Your task to perform on an android device: stop showing notifications on the lock screen Image 0: 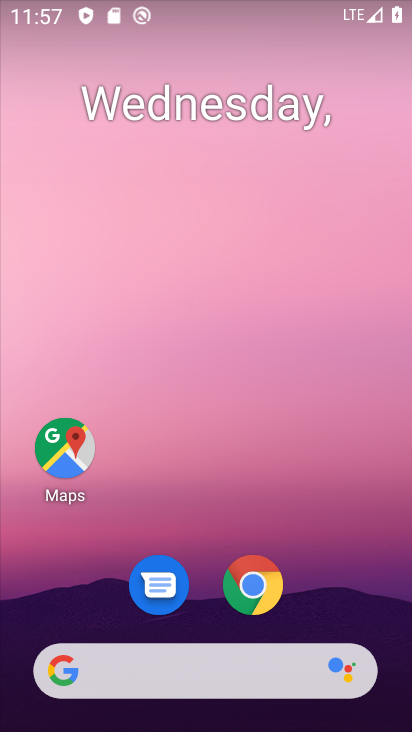
Step 0: drag from (316, 521) to (255, 41)
Your task to perform on an android device: stop showing notifications on the lock screen Image 1: 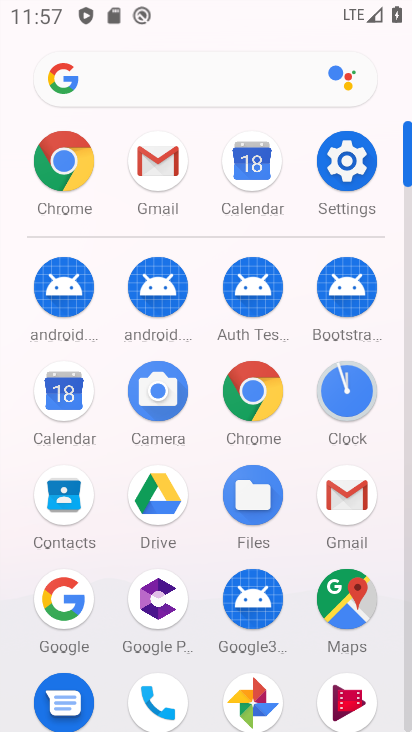
Step 1: click (328, 161)
Your task to perform on an android device: stop showing notifications on the lock screen Image 2: 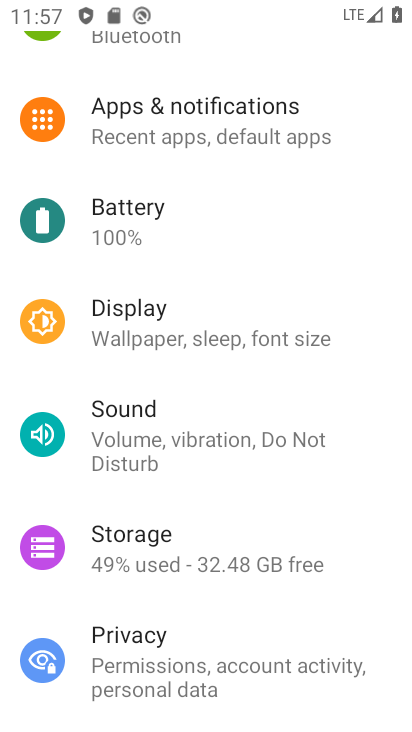
Step 2: click (243, 121)
Your task to perform on an android device: stop showing notifications on the lock screen Image 3: 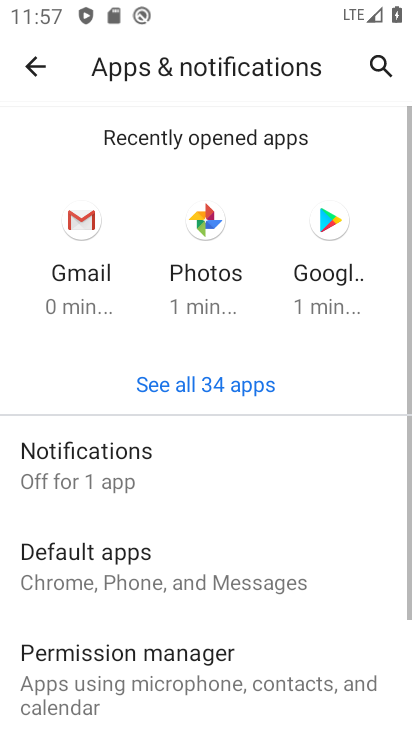
Step 3: click (162, 465)
Your task to perform on an android device: stop showing notifications on the lock screen Image 4: 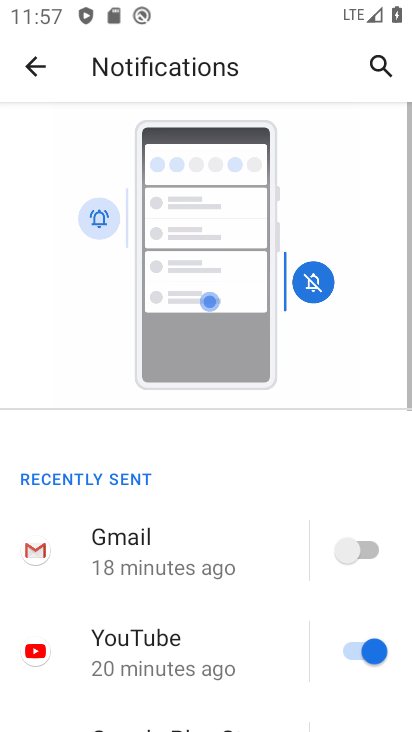
Step 4: drag from (228, 506) to (258, 176)
Your task to perform on an android device: stop showing notifications on the lock screen Image 5: 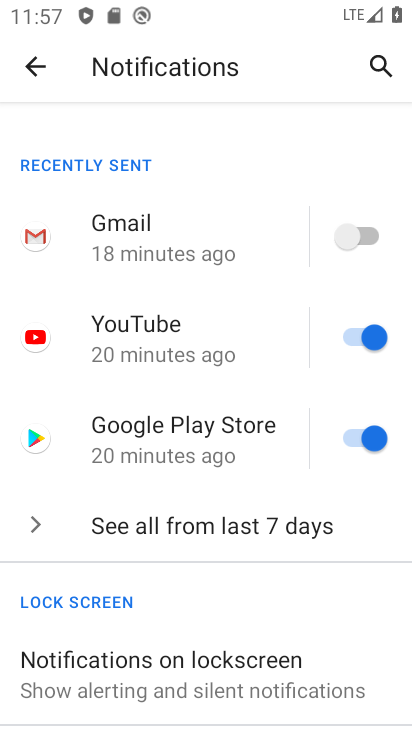
Step 5: click (288, 675)
Your task to perform on an android device: stop showing notifications on the lock screen Image 6: 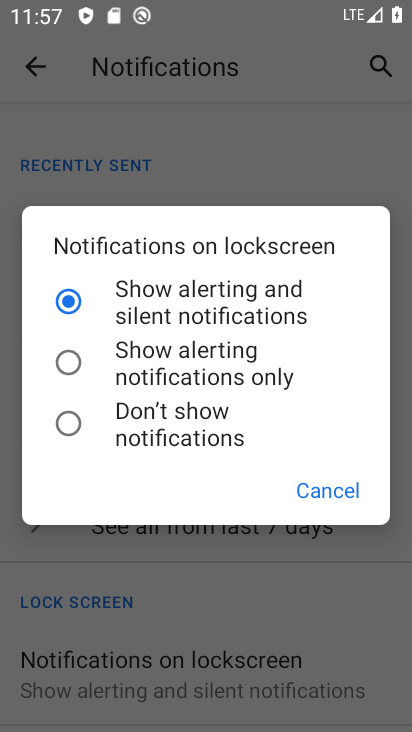
Step 6: click (72, 416)
Your task to perform on an android device: stop showing notifications on the lock screen Image 7: 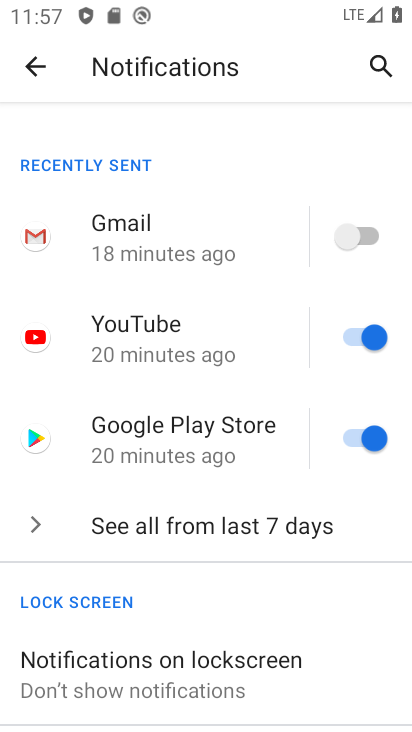
Step 7: task complete